Your task to perform on an android device: Go to Google Image 0: 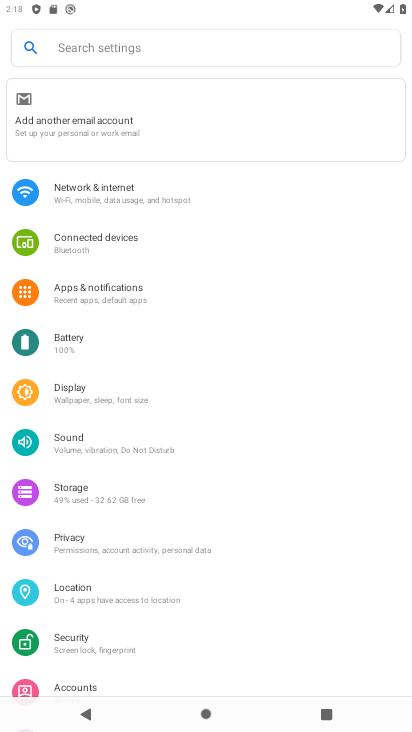
Step 0: press home button
Your task to perform on an android device: Go to Google Image 1: 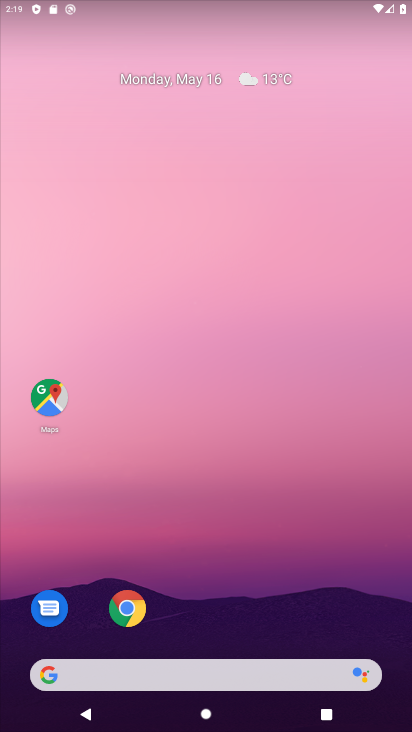
Step 1: click (152, 673)
Your task to perform on an android device: Go to Google Image 2: 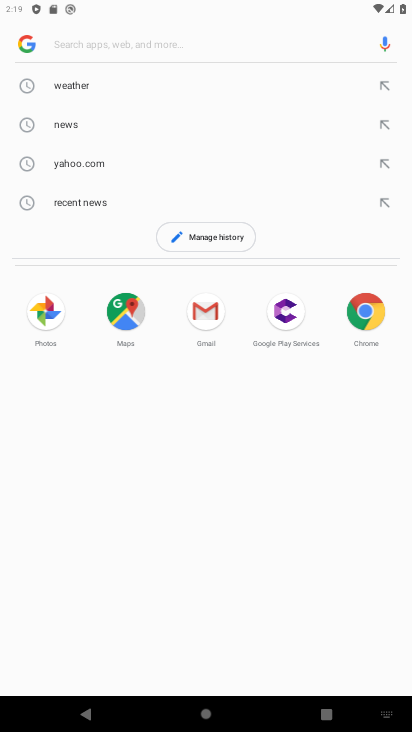
Step 2: task complete